Your task to perform on an android device: Do I have any events tomorrow? Image 0: 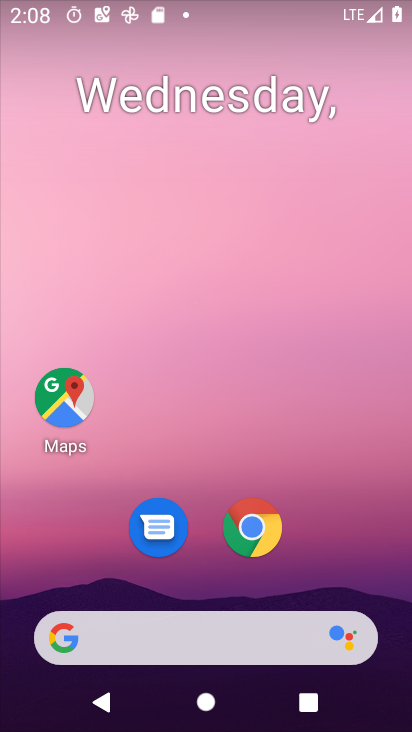
Step 0: drag from (186, 682) to (177, 57)
Your task to perform on an android device: Do I have any events tomorrow? Image 1: 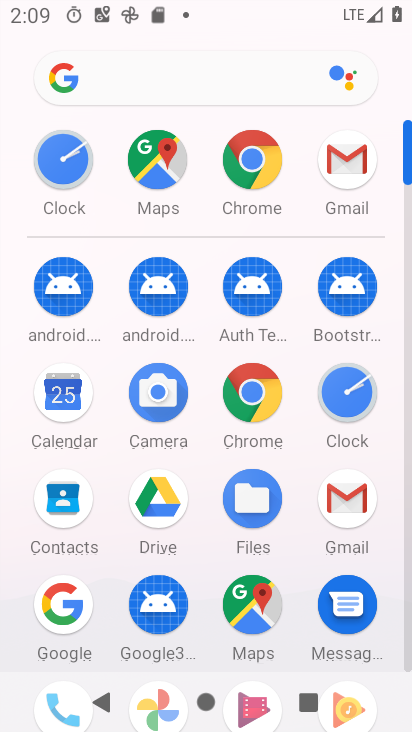
Step 1: click (81, 394)
Your task to perform on an android device: Do I have any events tomorrow? Image 2: 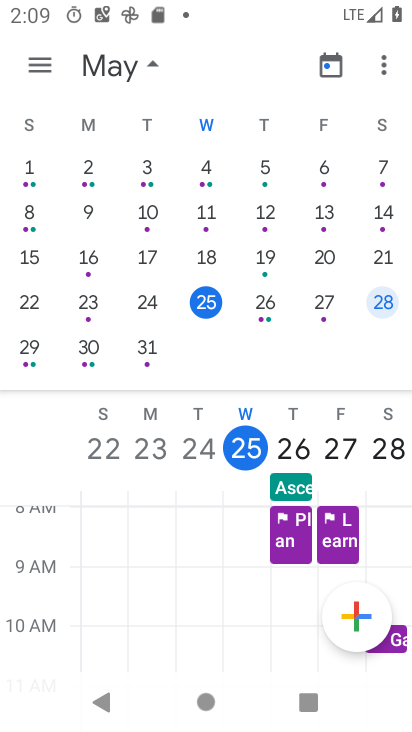
Step 2: click (268, 310)
Your task to perform on an android device: Do I have any events tomorrow? Image 3: 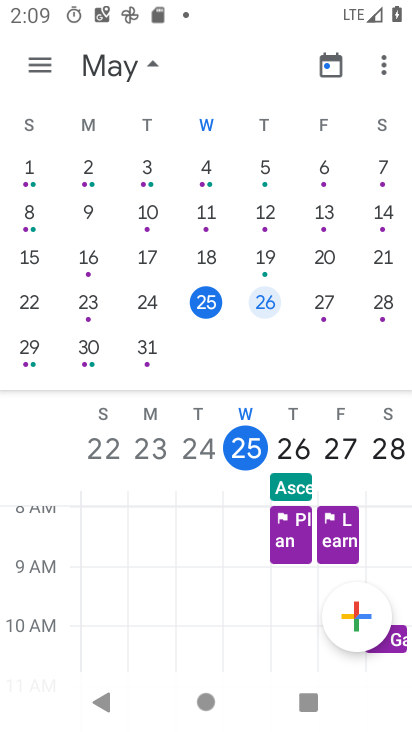
Step 3: task complete